Your task to perform on an android device: What's the weather? Image 0: 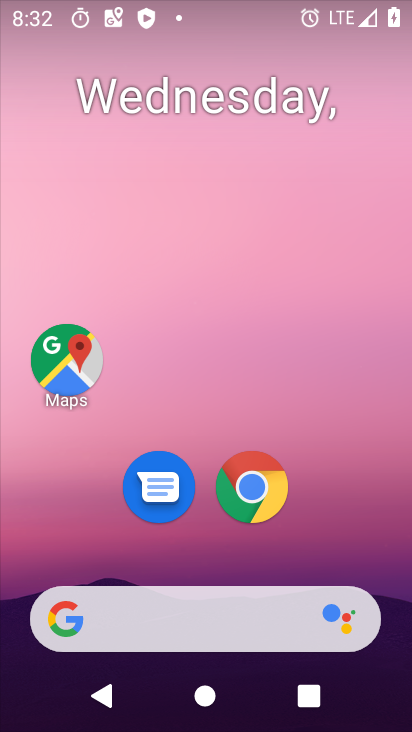
Step 0: click (127, 617)
Your task to perform on an android device: What's the weather? Image 1: 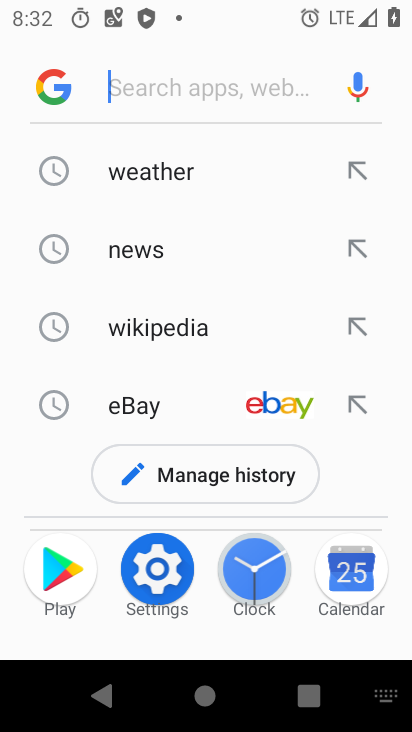
Step 1: click (140, 175)
Your task to perform on an android device: What's the weather? Image 2: 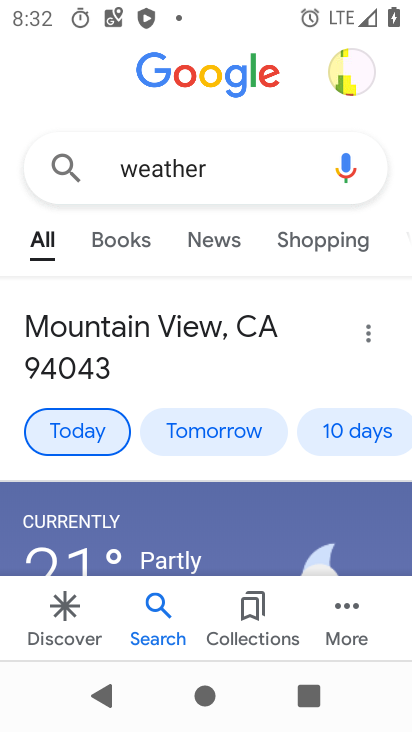
Step 2: task complete